Your task to perform on an android device: turn on showing notifications on the lock screen Image 0: 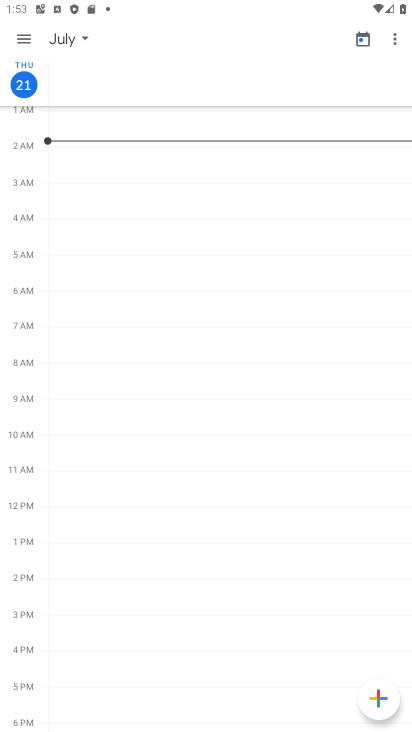
Step 0: press home button
Your task to perform on an android device: turn on showing notifications on the lock screen Image 1: 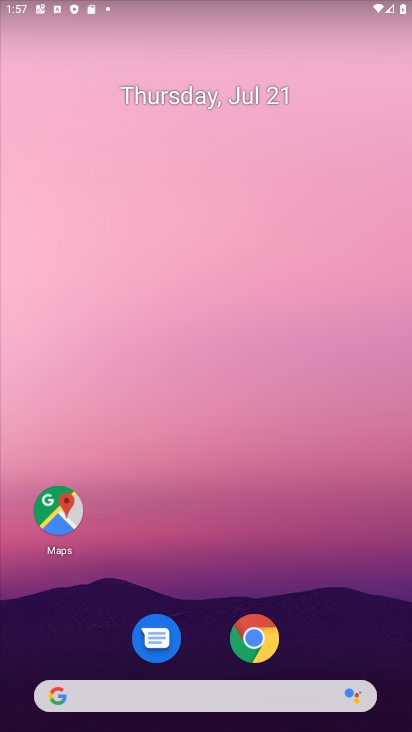
Step 1: drag from (209, 621) to (333, 18)
Your task to perform on an android device: turn on showing notifications on the lock screen Image 2: 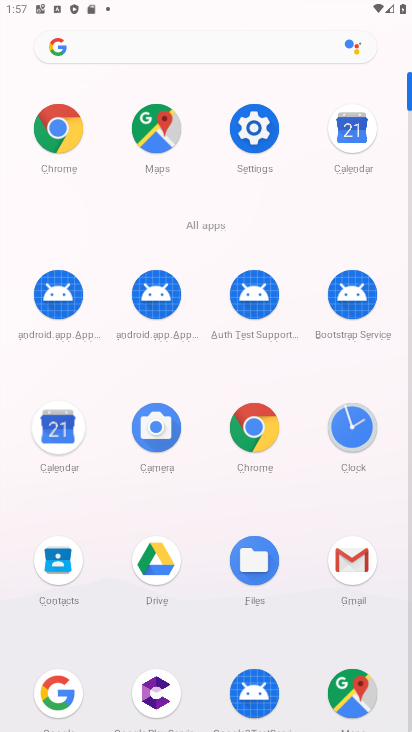
Step 2: click (255, 142)
Your task to perform on an android device: turn on showing notifications on the lock screen Image 3: 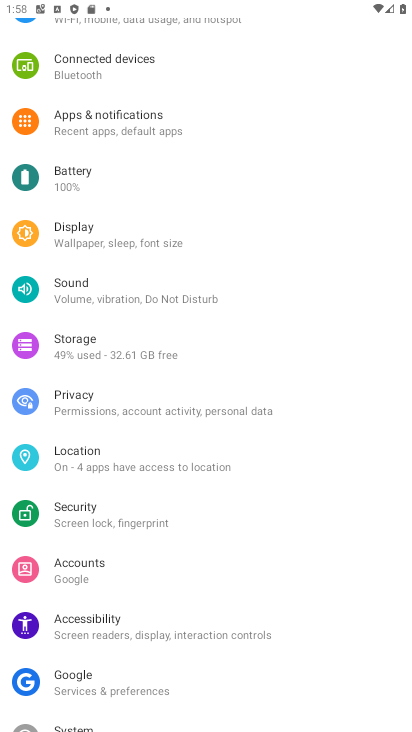
Step 3: click (142, 125)
Your task to perform on an android device: turn on showing notifications on the lock screen Image 4: 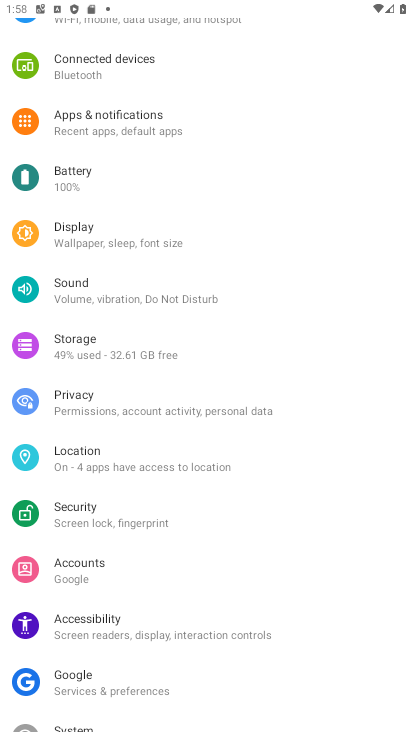
Step 4: click (142, 125)
Your task to perform on an android device: turn on showing notifications on the lock screen Image 5: 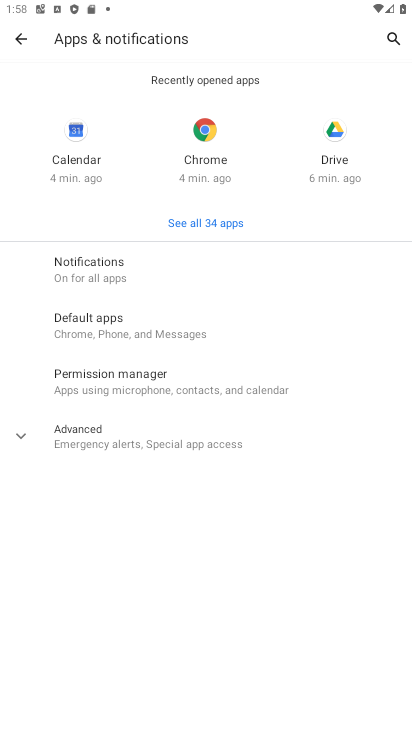
Step 5: click (109, 262)
Your task to perform on an android device: turn on showing notifications on the lock screen Image 6: 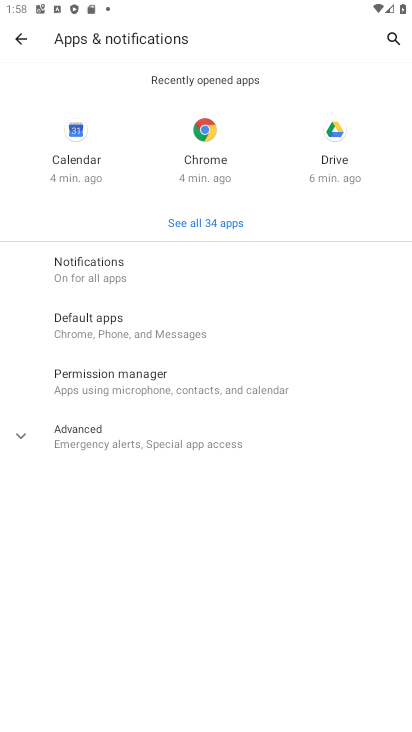
Step 6: click (109, 262)
Your task to perform on an android device: turn on showing notifications on the lock screen Image 7: 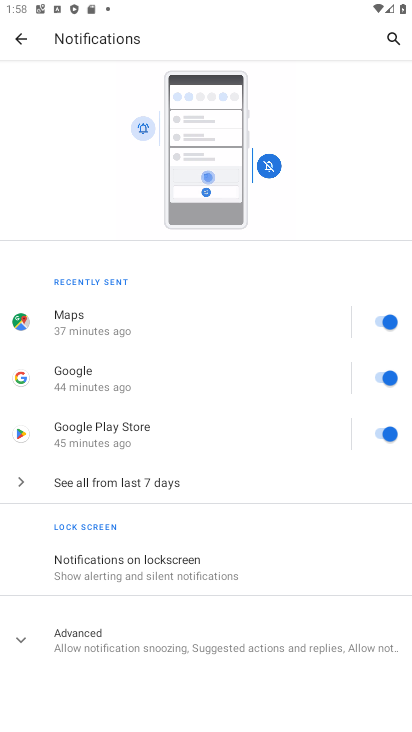
Step 7: click (138, 564)
Your task to perform on an android device: turn on showing notifications on the lock screen Image 8: 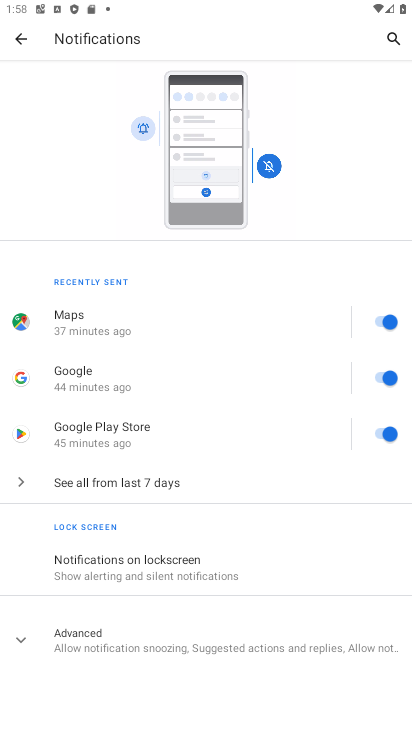
Step 8: click (138, 564)
Your task to perform on an android device: turn on showing notifications on the lock screen Image 9: 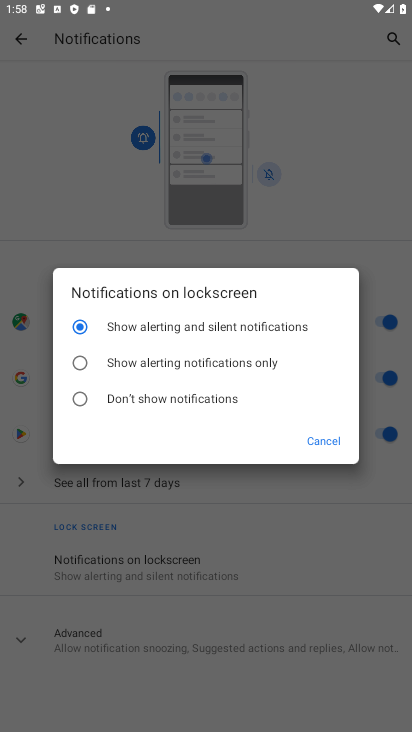
Step 9: task complete